Your task to perform on an android device: Do I have any events today? Image 0: 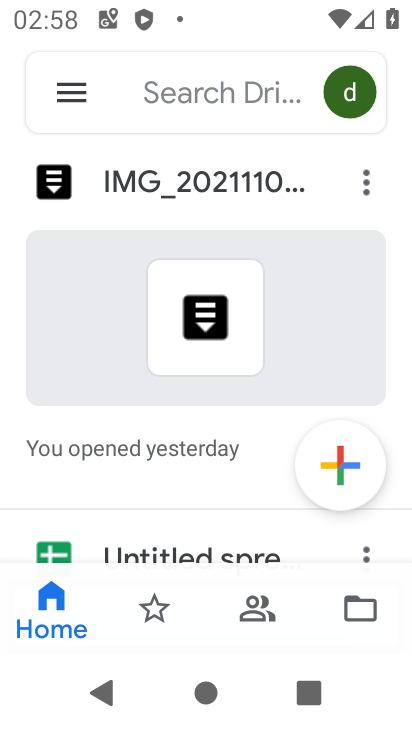
Step 0: press home button
Your task to perform on an android device: Do I have any events today? Image 1: 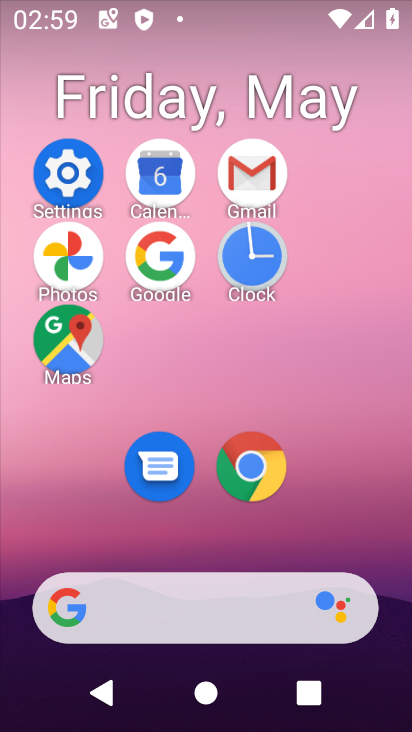
Step 1: click (159, 193)
Your task to perform on an android device: Do I have any events today? Image 2: 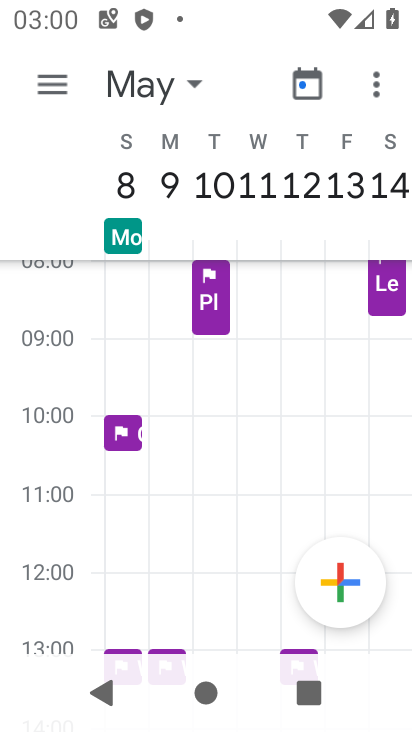
Step 2: click (61, 89)
Your task to perform on an android device: Do I have any events today? Image 3: 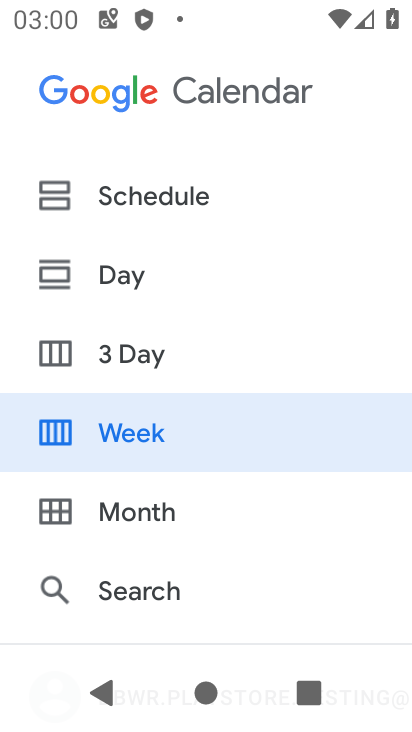
Step 3: click (144, 261)
Your task to perform on an android device: Do I have any events today? Image 4: 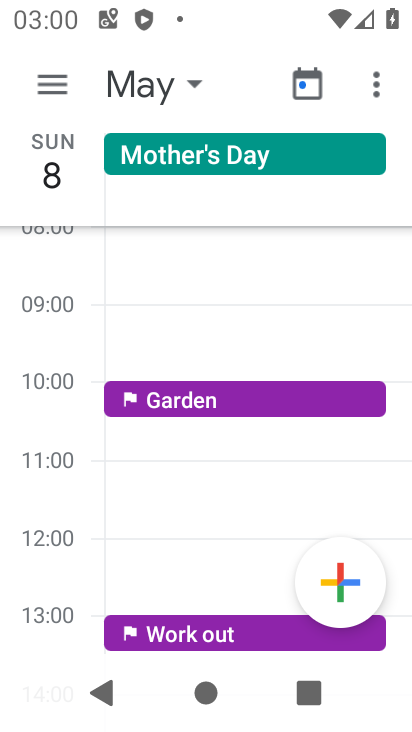
Step 4: task complete